Your task to perform on an android device: turn on the 12-hour format for clock Image 0: 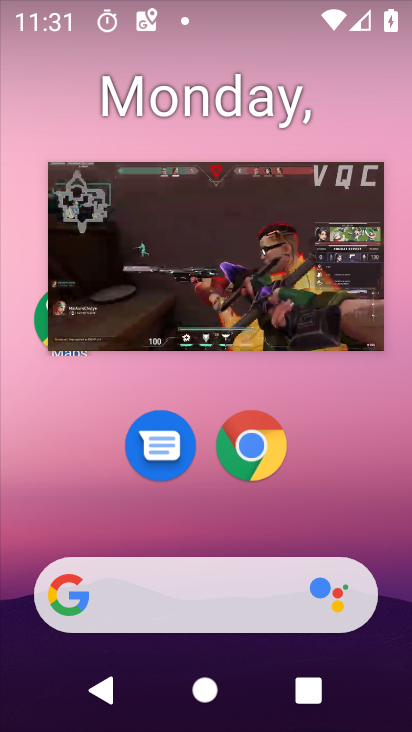
Step 0: click (197, 243)
Your task to perform on an android device: turn on the 12-hour format for clock Image 1: 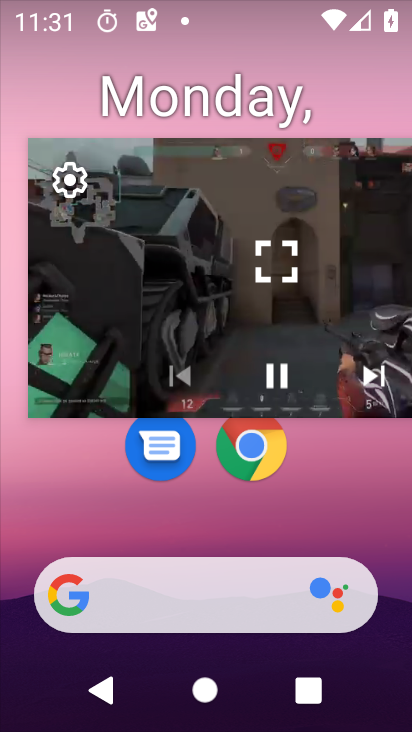
Step 1: click (274, 262)
Your task to perform on an android device: turn on the 12-hour format for clock Image 2: 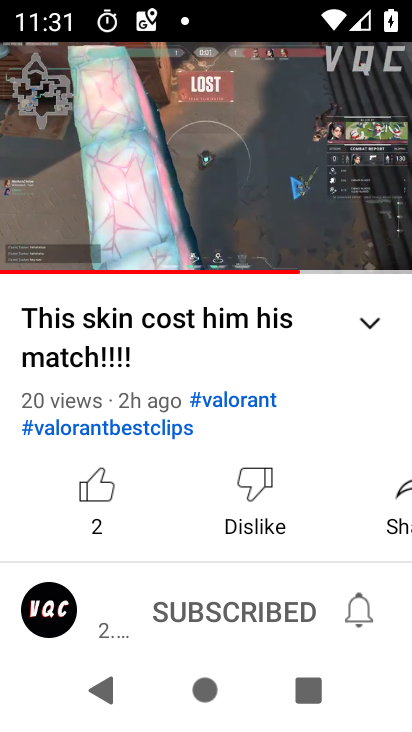
Step 2: click (215, 153)
Your task to perform on an android device: turn on the 12-hour format for clock Image 3: 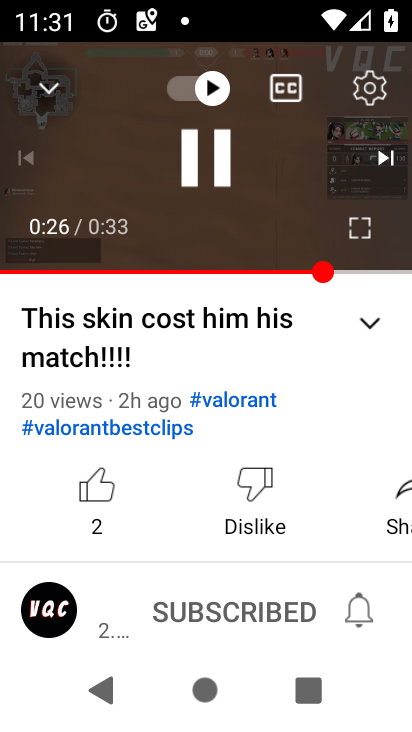
Step 3: click (204, 160)
Your task to perform on an android device: turn on the 12-hour format for clock Image 4: 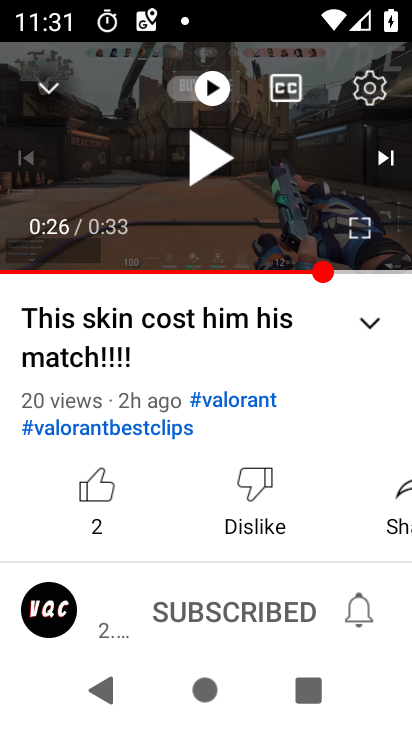
Step 4: press home button
Your task to perform on an android device: turn on the 12-hour format for clock Image 5: 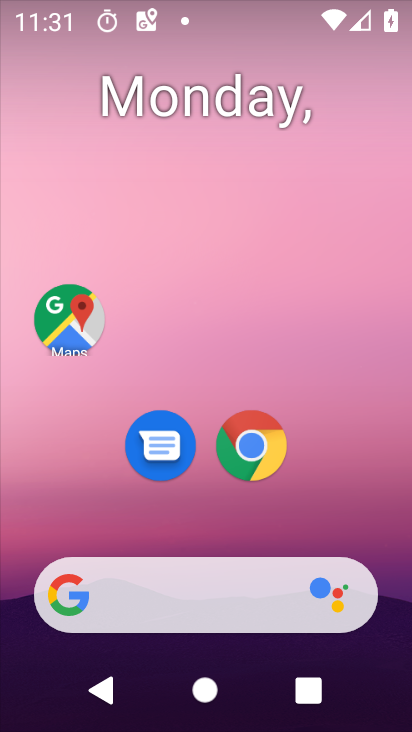
Step 5: drag from (176, 523) to (254, 66)
Your task to perform on an android device: turn on the 12-hour format for clock Image 6: 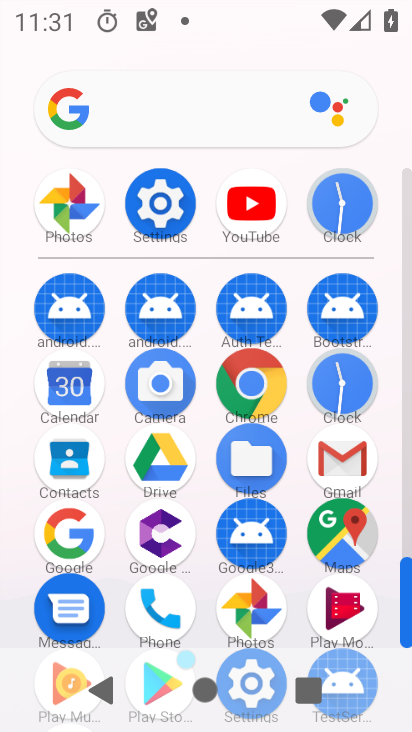
Step 6: click (351, 196)
Your task to perform on an android device: turn on the 12-hour format for clock Image 7: 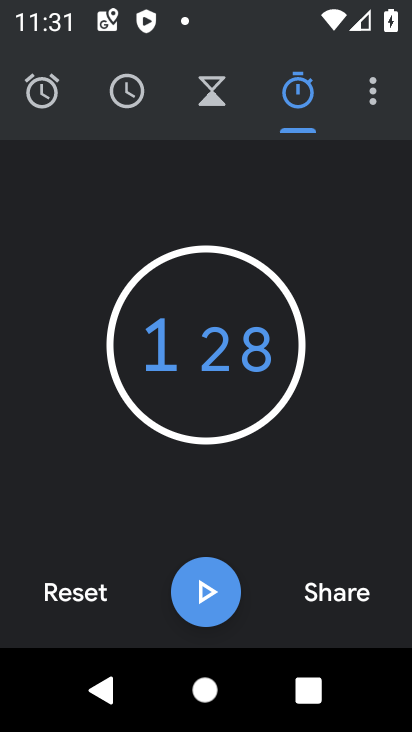
Step 7: click (369, 88)
Your task to perform on an android device: turn on the 12-hour format for clock Image 8: 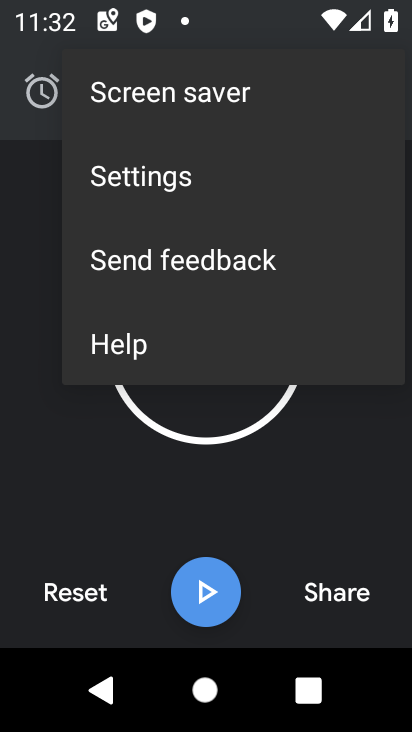
Step 8: click (143, 179)
Your task to perform on an android device: turn on the 12-hour format for clock Image 9: 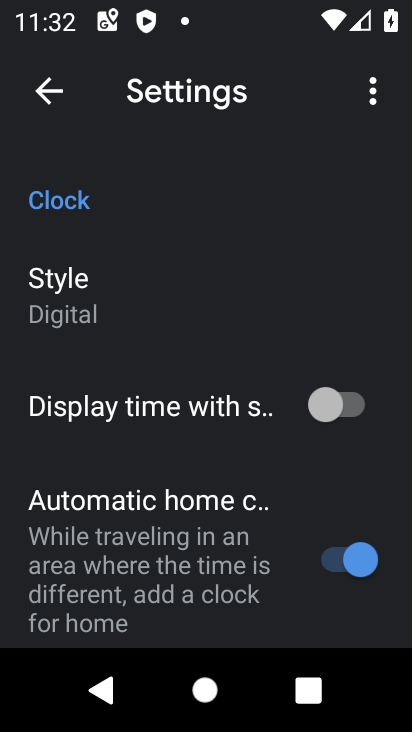
Step 9: drag from (182, 579) to (317, 61)
Your task to perform on an android device: turn on the 12-hour format for clock Image 10: 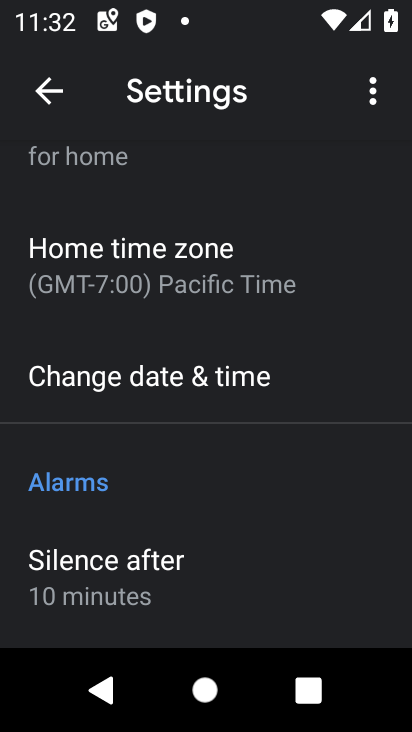
Step 10: click (137, 398)
Your task to perform on an android device: turn on the 12-hour format for clock Image 11: 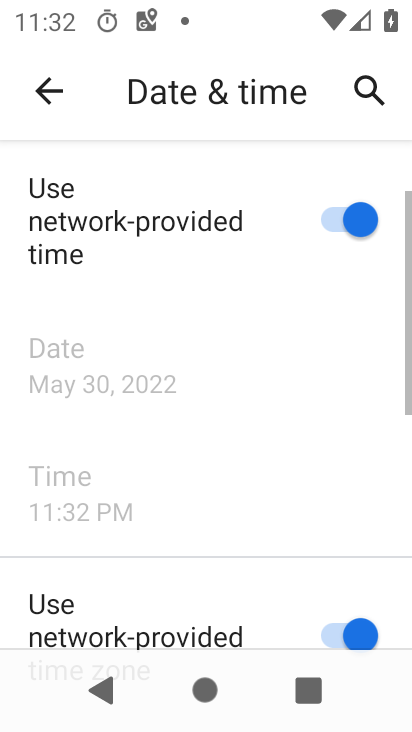
Step 11: task complete